Your task to perform on an android device: Open ESPN.com Image 0: 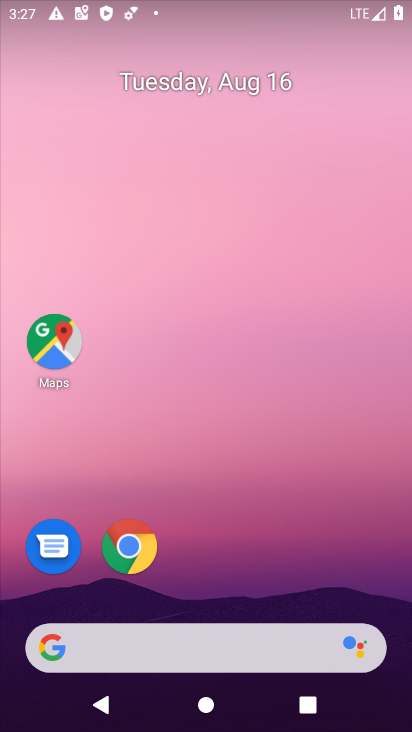
Step 0: press home button
Your task to perform on an android device: Open ESPN.com Image 1: 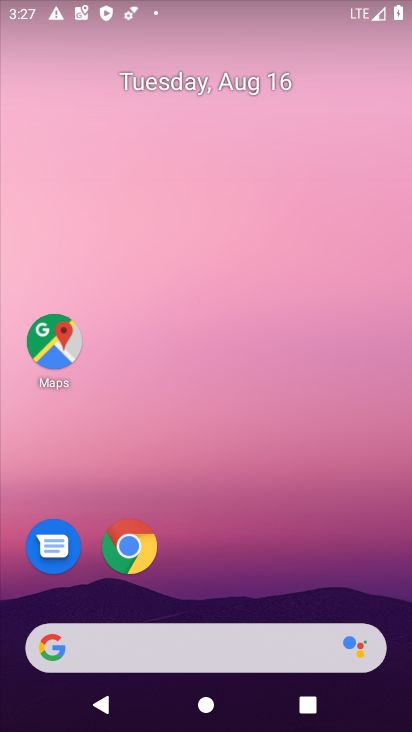
Step 1: drag from (297, 603) to (336, 123)
Your task to perform on an android device: Open ESPN.com Image 2: 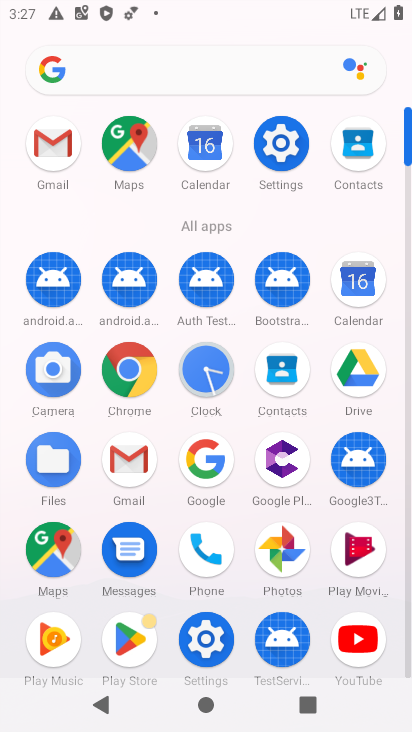
Step 2: click (129, 366)
Your task to perform on an android device: Open ESPN.com Image 3: 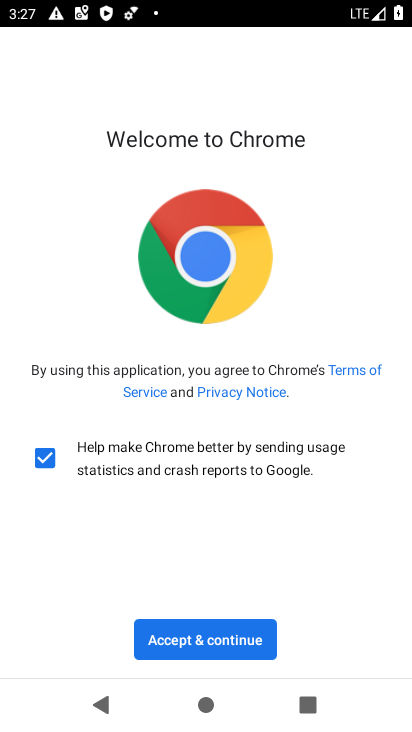
Step 3: click (180, 639)
Your task to perform on an android device: Open ESPN.com Image 4: 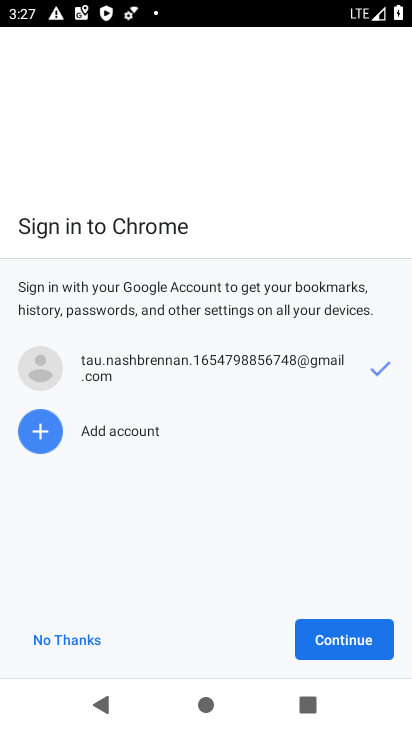
Step 4: click (338, 636)
Your task to perform on an android device: Open ESPN.com Image 5: 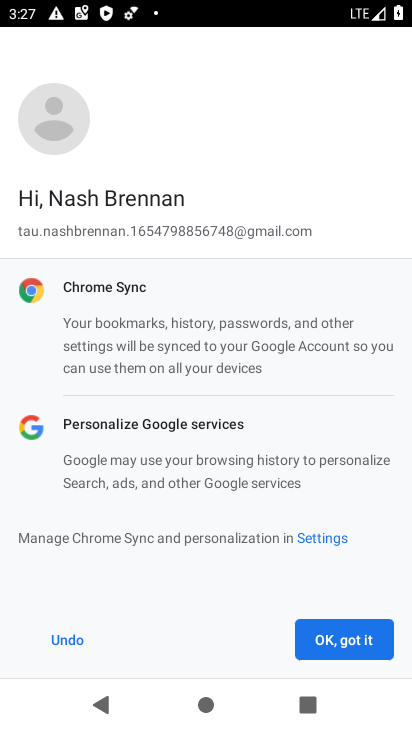
Step 5: click (327, 634)
Your task to perform on an android device: Open ESPN.com Image 6: 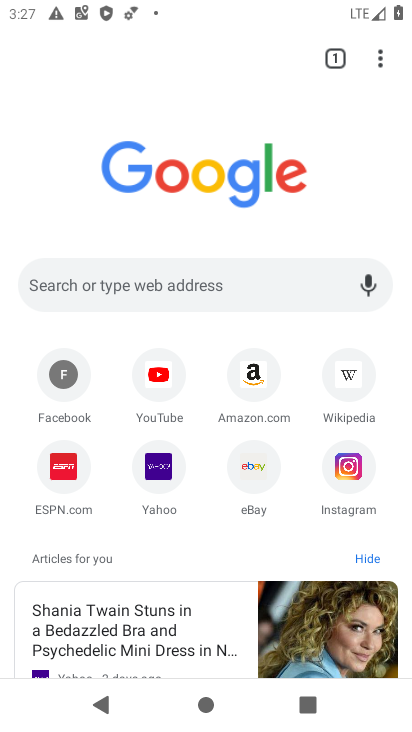
Step 6: click (249, 292)
Your task to perform on an android device: Open ESPN.com Image 7: 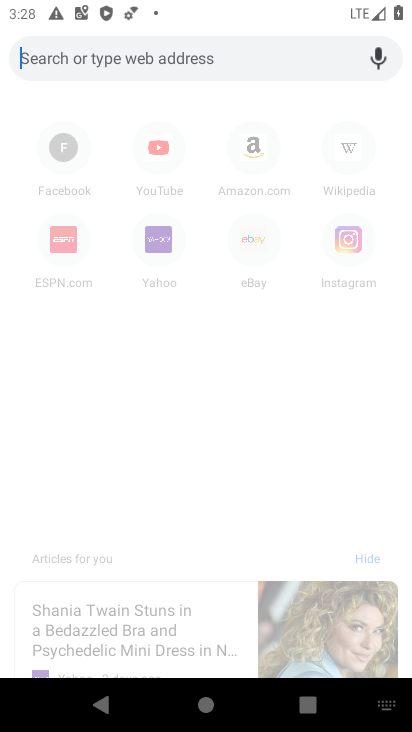
Step 7: type "espn.com"
Your task to perform on an android device: Open ESPN.com Image 8: 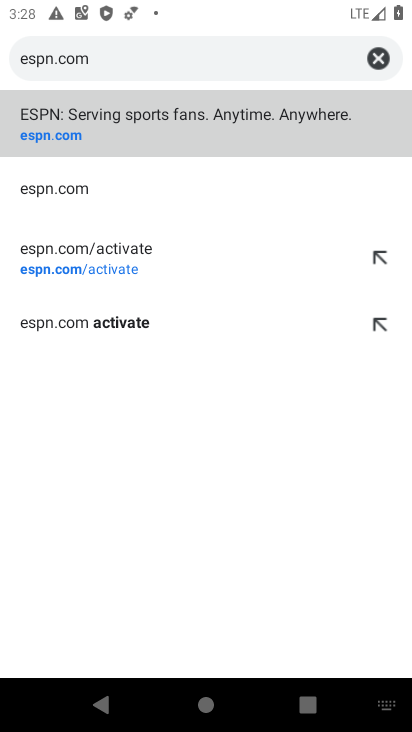
Step 8: click (306, 126)
Your task to perform on an android device: Open ESPN.com Image 9: 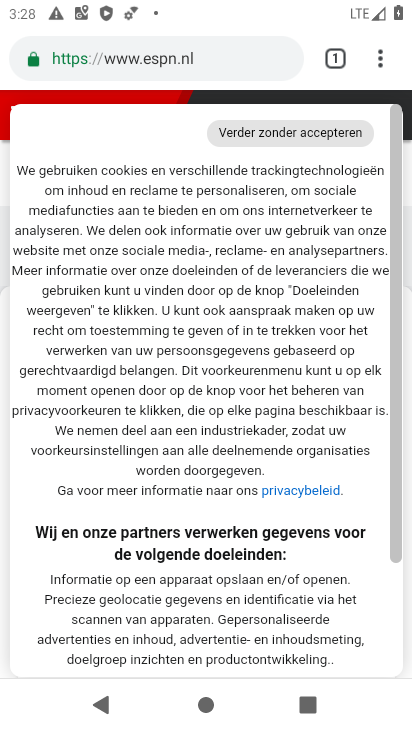
Step 9: task complete